Your task to perform on an android device: Turn on the flashlight Image 0: 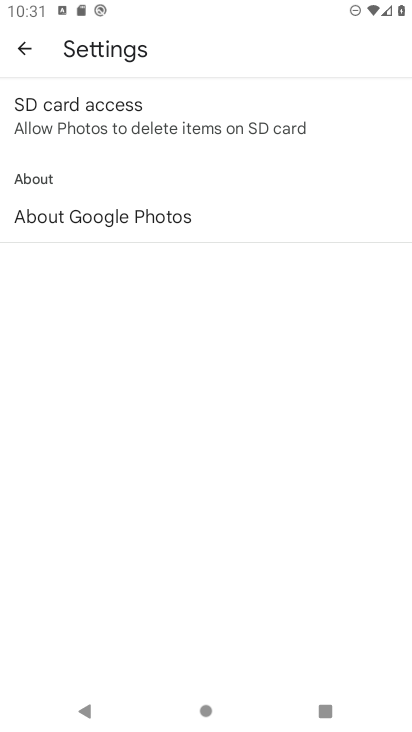
Step 0: press home button
Your task to perform on an android device: Turn on the flashlight Image 1: 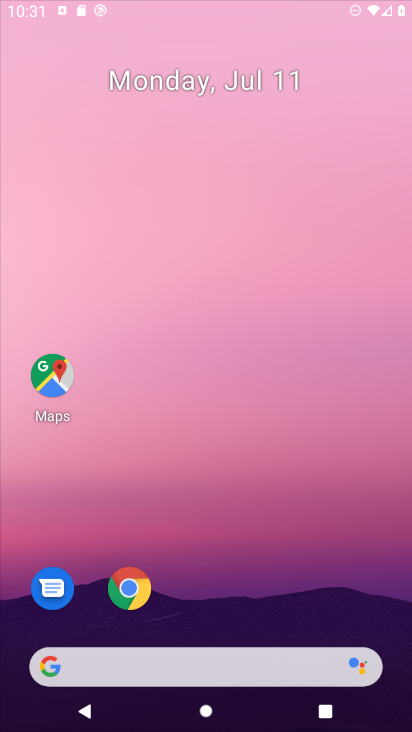
Step 1: drag from (363, 697) to (50, 67)
Your task to perform on an android device: Turn on the flashlight Image 2: 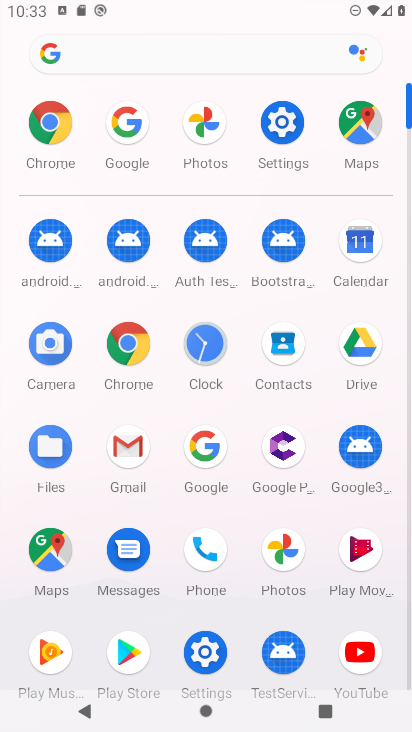
Step 2: click (272, 120)
Your task to perform on an android device: Turn on the flashlight Image 3: 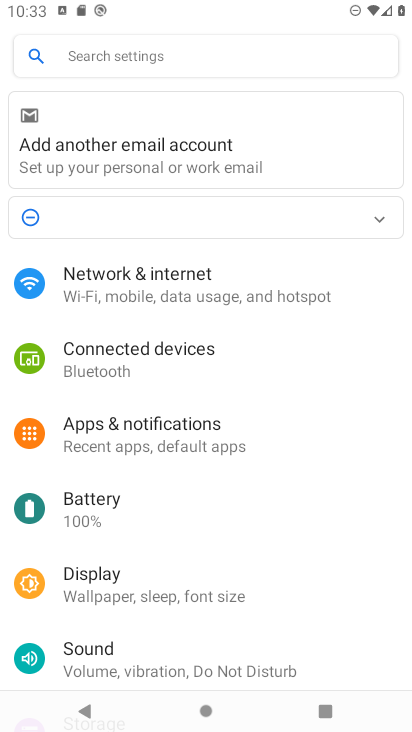
Step 3: task complete